Your task to perform on an android device: Check the weather Image 0: 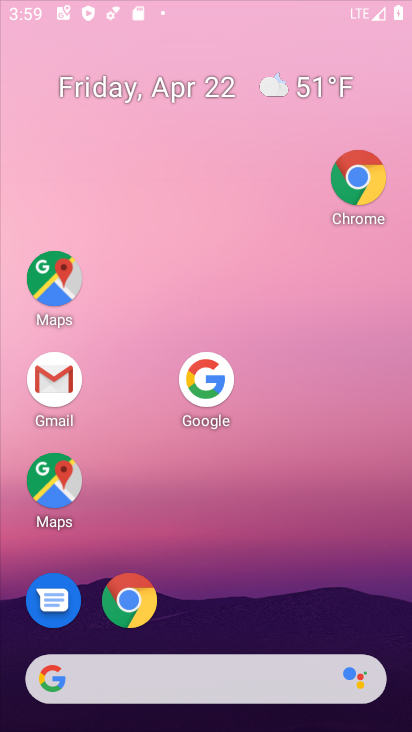
Step 0: drag from (264, 619) to (241, 113)
Your task to perform on an android device: Check the weather Image 1: 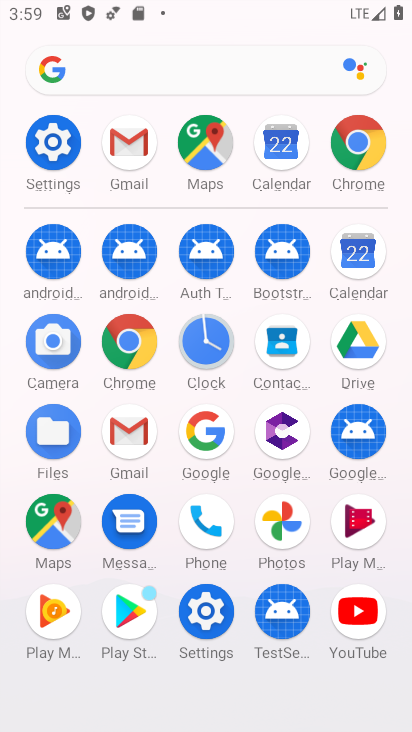
Step 1: press home button
Your task to perform on an android device: Check the weather Image 2: 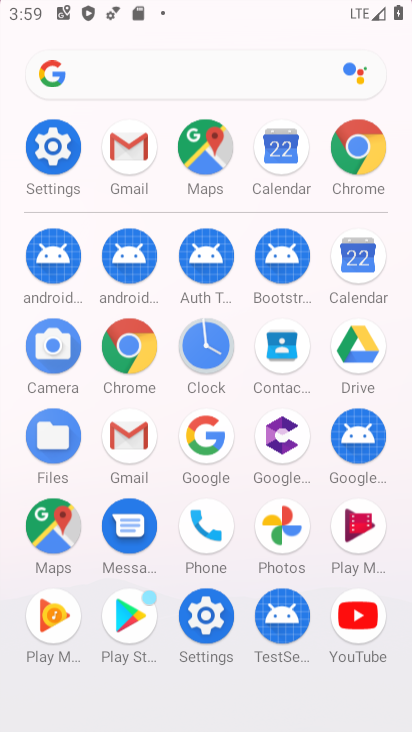
Step 2: press home button
Your task to perform on an android device: Check the weather Image 3: 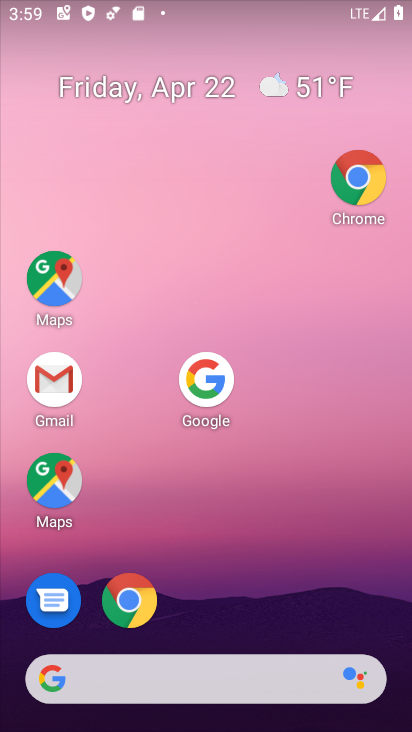
Step 3: drag from (9, 189) to (338, 409)
Your task to perform on an android device: Check the weather Image 4: 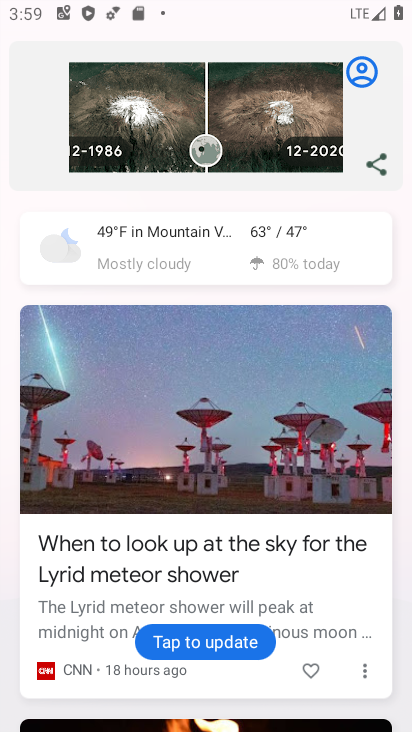
Step 4: click (167, 231)
Your task to perform on an android device: Check the weather Image 5: 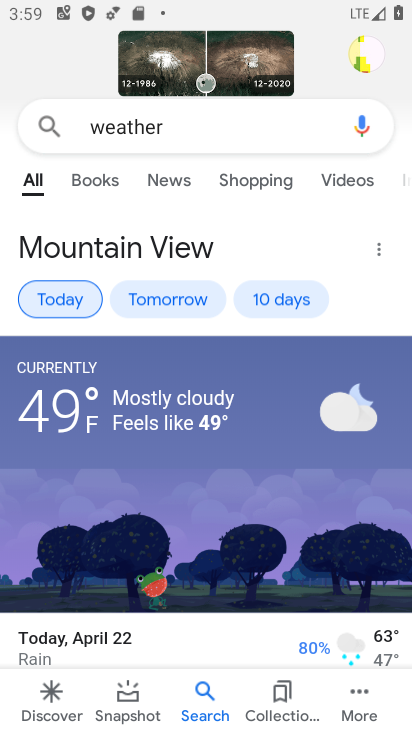
Step 5: task complete